Your task to perform on an android device: Open my contact list Image 0: 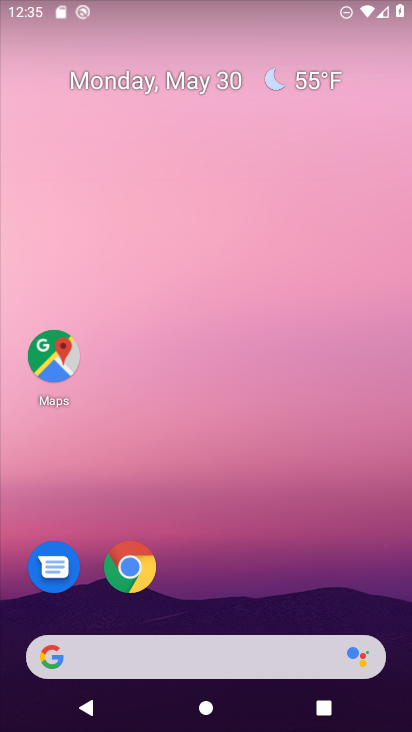
Step 0: press home button
Your task to perform on an android device: Open my contact list Image 1: 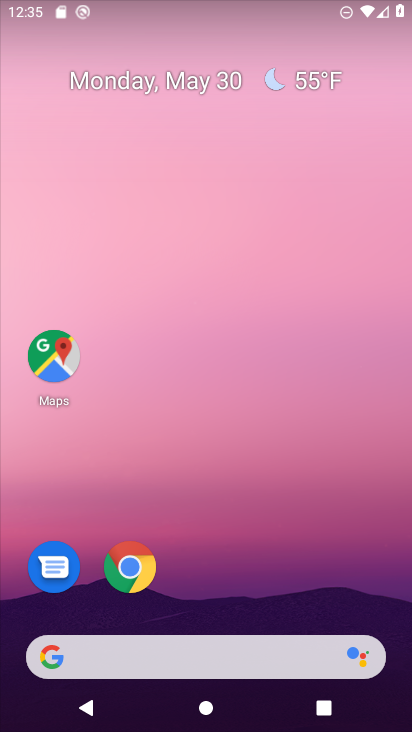
Step 1: drag from (229, 597) to (229, 75)
Your task to perform on an android device: Open my contact list Image 2: 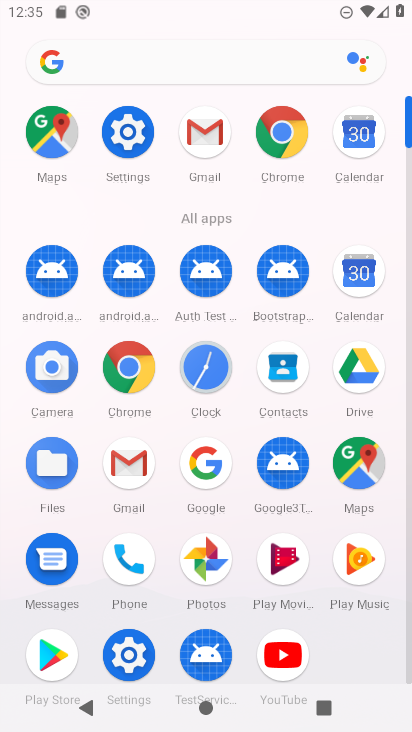
Step 2: click (283, 367)
Your task to perform on an android device: Open my contact list Image 3: 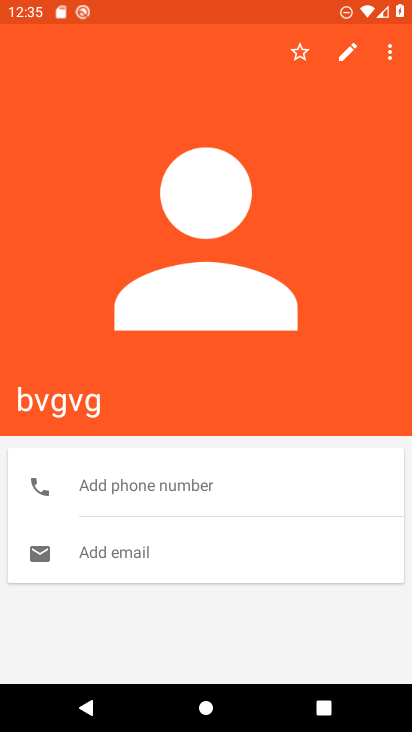
Step 3: press back button
Your task to perform on an android device: Open my contact list Image 4: 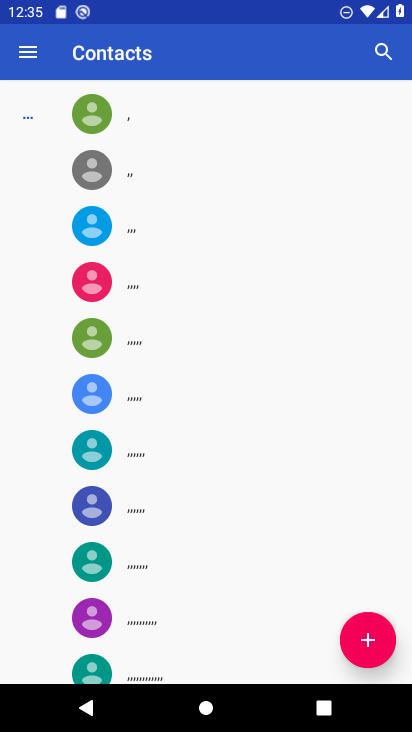
Step 4: click (210, 571)
Your task to perform on an android device: Open my contact list Image 5: 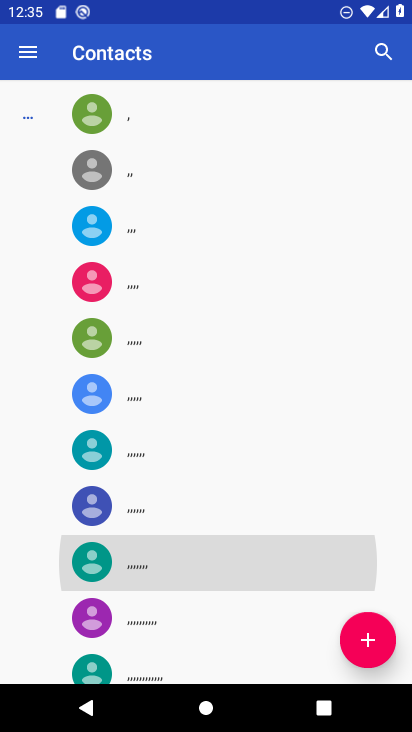
Step 5: task complete